Your task to perform on an android device: Go to eBay Image 0: 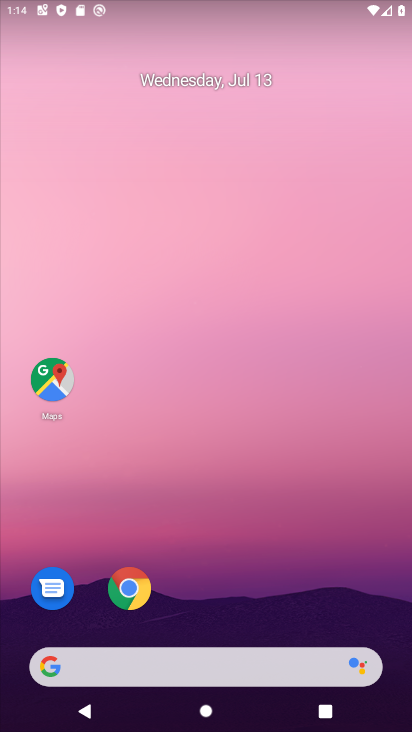
Step 0: click (133, 594)
Your task to perform on an android device: Go to eBay Image 1: 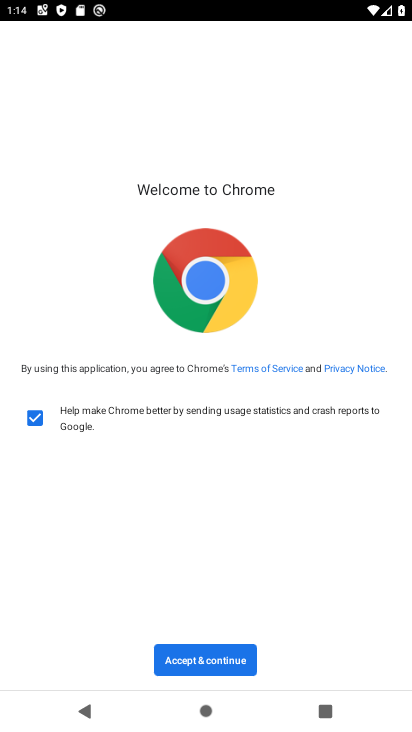
Step 1: click (198, 663)
Your task to perform on an android device: Go to eBay Image 2: 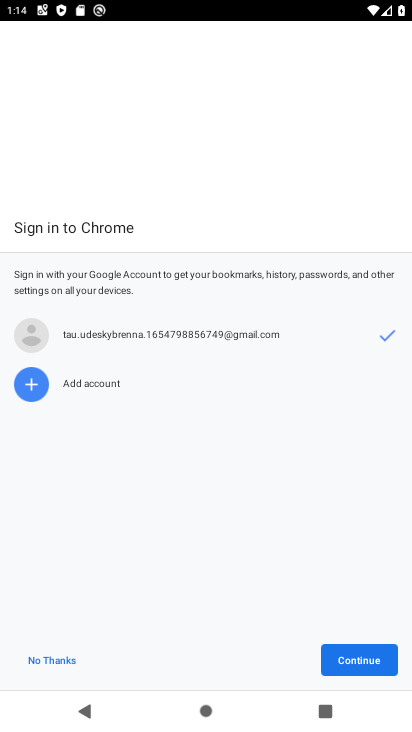
Step 2: click (349, 651)
Your task to perform on an android device: Go to eBay Image 3: 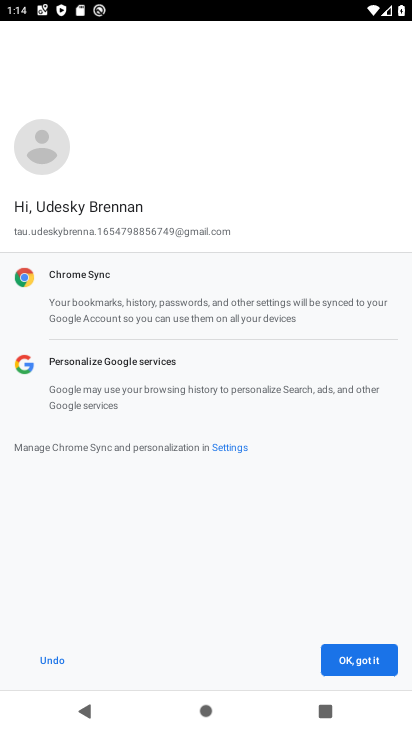
Step 3: click (349, 651)
Your task to perform on an android device: Go to eBay Image 4: 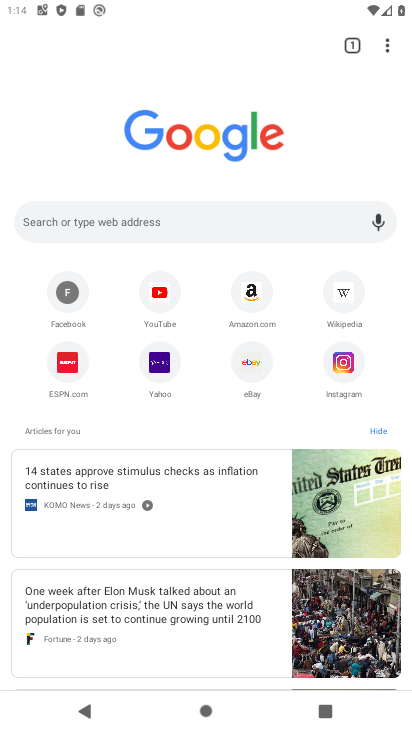
Step 4: click (254, 365)
Your task to perform on an android device: Go to eBay Image 5: 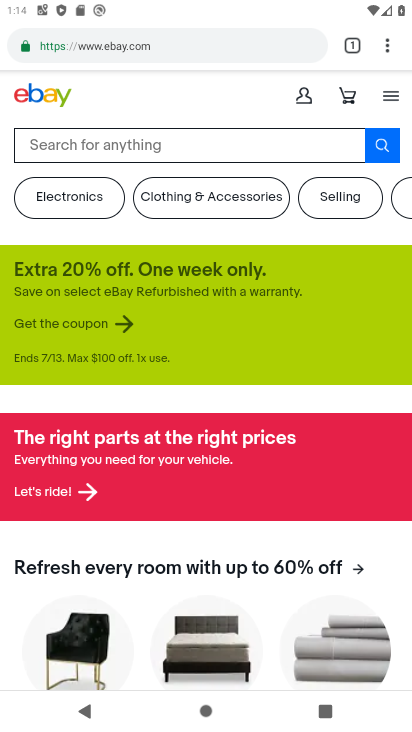
Step 5: task complete